Your task to perform on an android device: set default search engine in the chrome app Image 0: 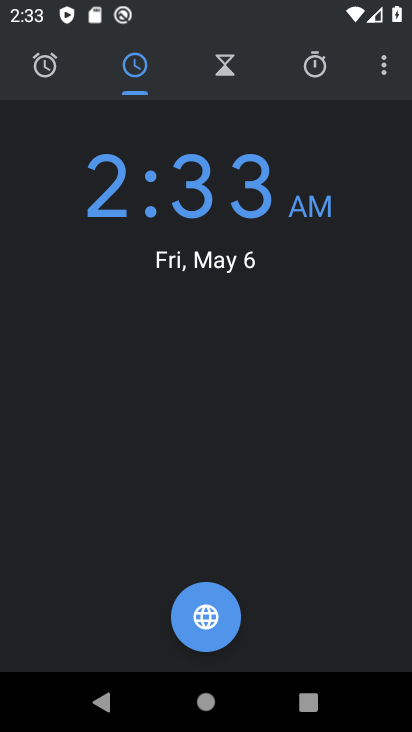
Step 0: press home button
Your task to perform on an android device: set default search engine in the chrome app Image 1: 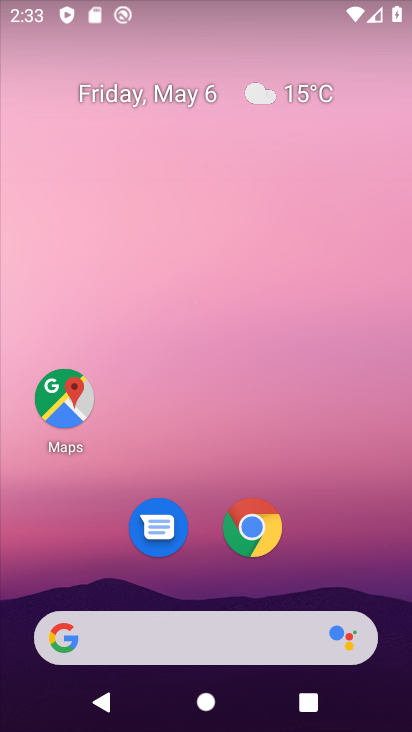
Step 1: click (250, 533)
Your task to perform on an android device: set default search engine in the chrome app Image 2: 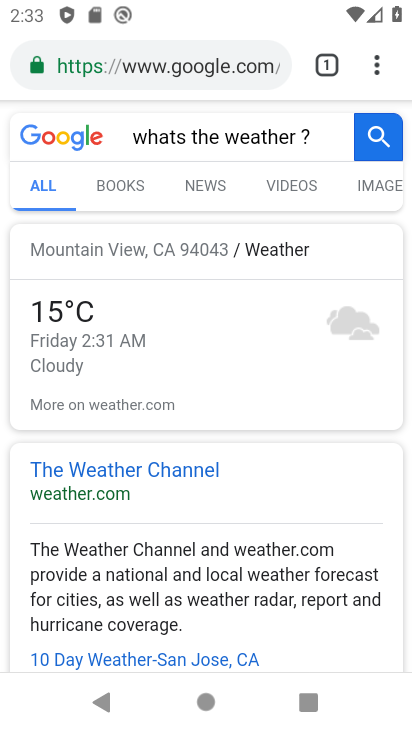
Step 2: click (370, 62)
Your task to perform on an android device: set default search engine in the chrome app Image 3: 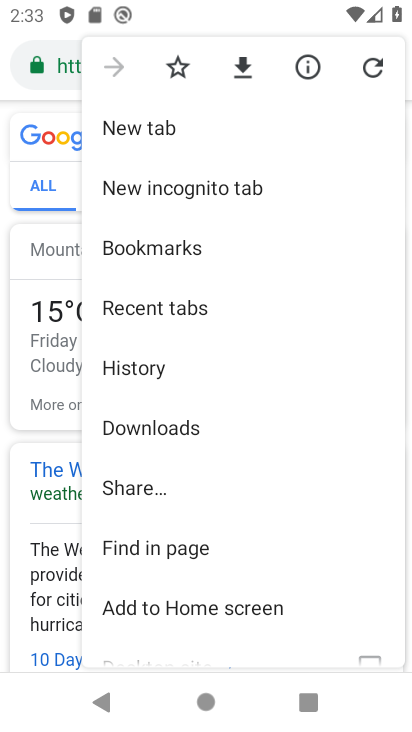
Step 3: drag from (183, 554) to (211, 292)
Your task to perform on an android device: set default search engine in the chrome app Image 4: 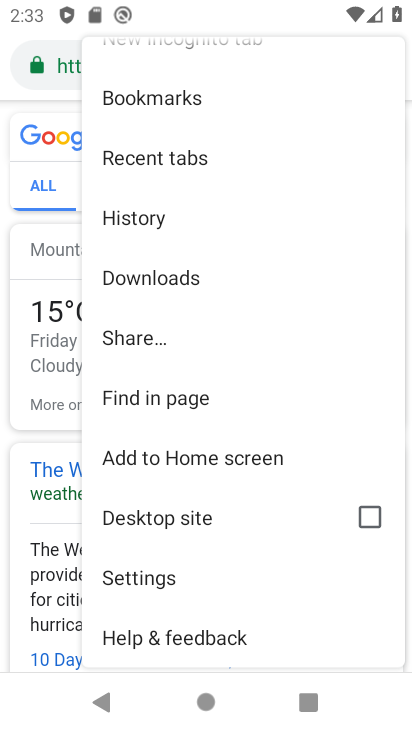
Step 4: click (162, 591)
Your task to perform on an android device: set default search engine in the chrome app Image 5: 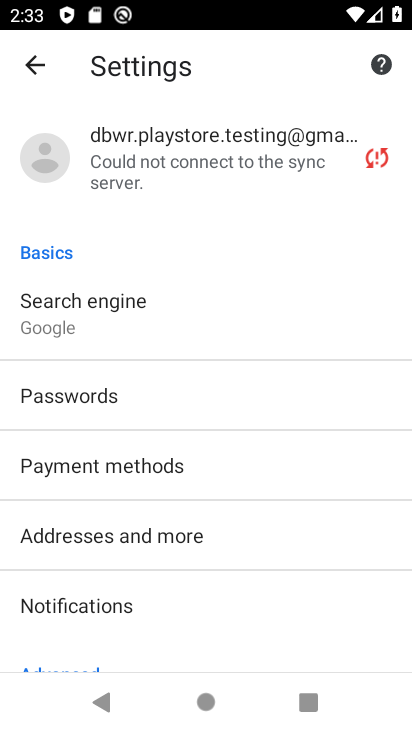
Step 5: click (105, 319)
Your task to perform on an android device: set default search engine in the chrome app Image 6: 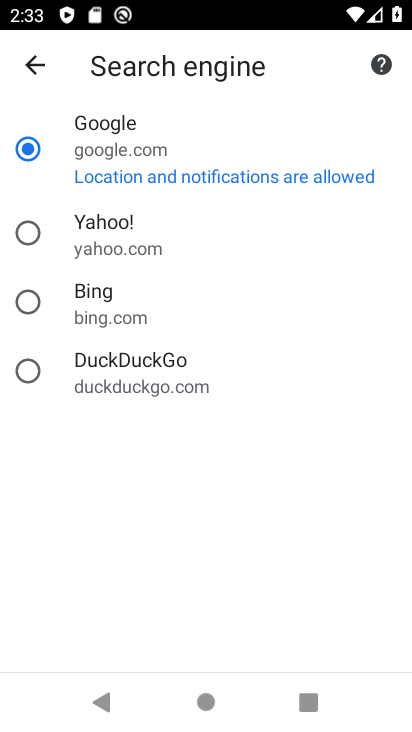
Step 6: task complete